Your task to perform on an android device: star an email in the gmail app Image 0: 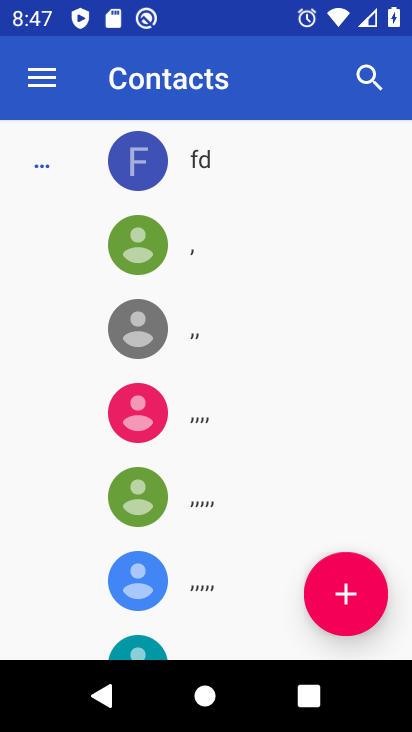
Step 0: press back button
Your task to perform on an android device: star an email in the gmail app Image 1: 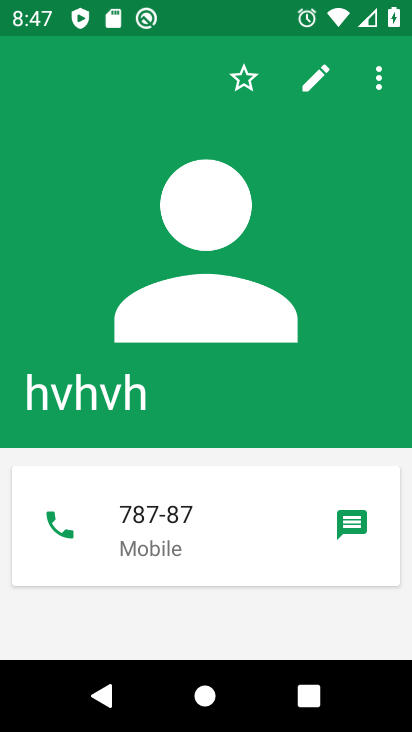
Step 1: press back button
Your task to perform on an android device: star an email in the gmail app Image 2: 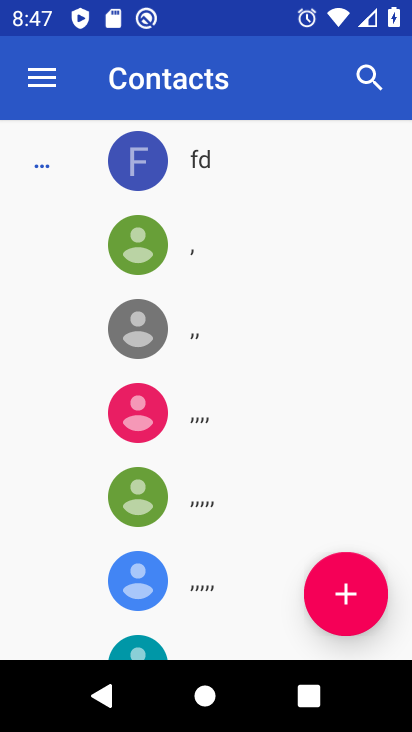
Step 2: press back button
Your task to perform on an android device: star an email in the gmail app Image 3: 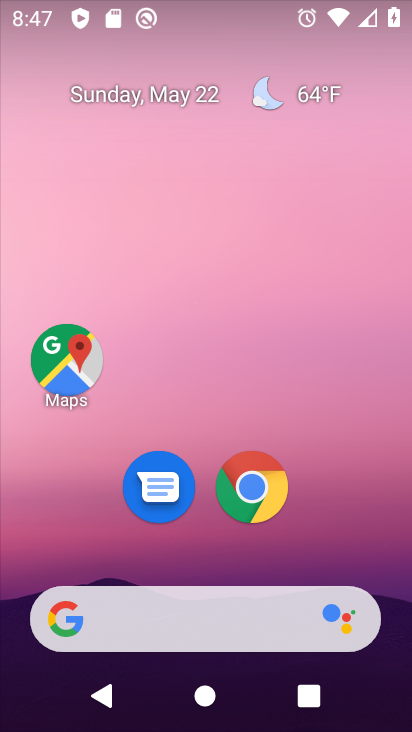
Step 3: drag from (199, 445) to (256, 39)
Your task to perform on an android device: star an email in the gmail app Image 4: 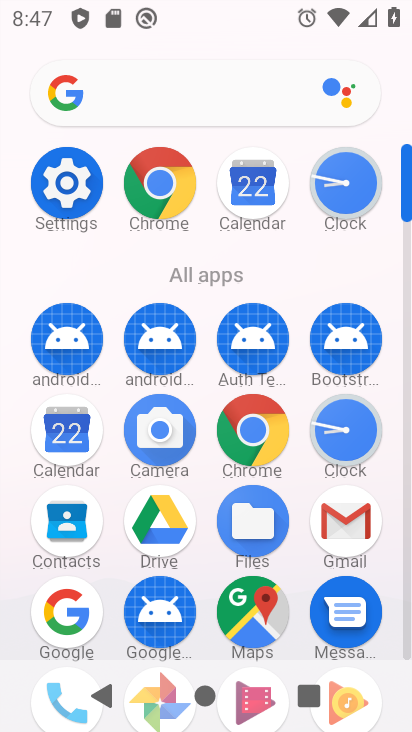
Step 4: click (343, 511)
Your task to perform on an android device: star an email in the gmail app Image 5: 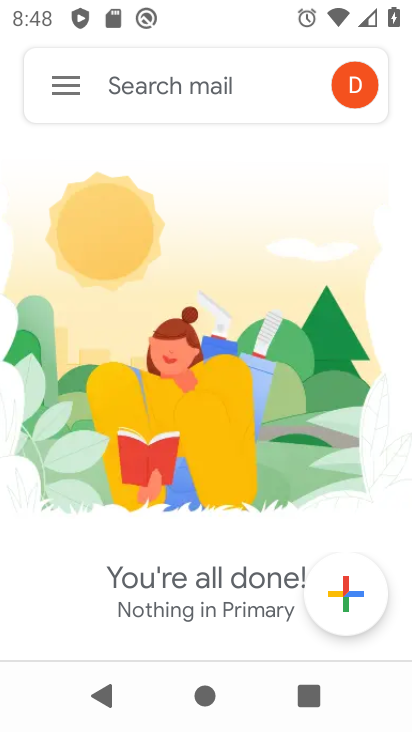
Step 5: click (71, 78)
Your task to perform on an android device: star an email in the gmail app Image 6: 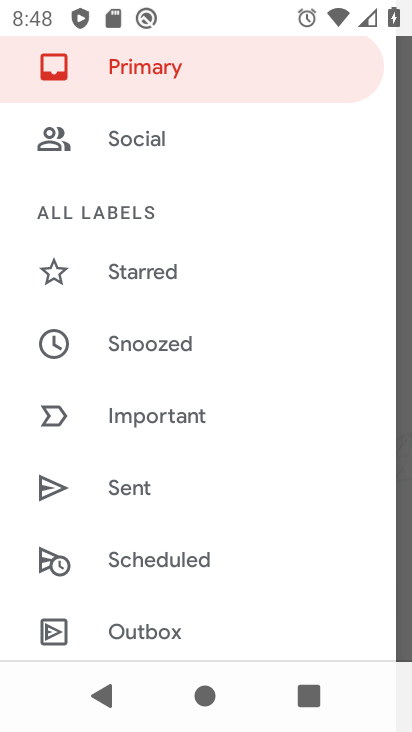
Step 6: drag from (206, 244) to (263, 41)
Your task to perform on an android device: star an email in the gmail app Image 7: 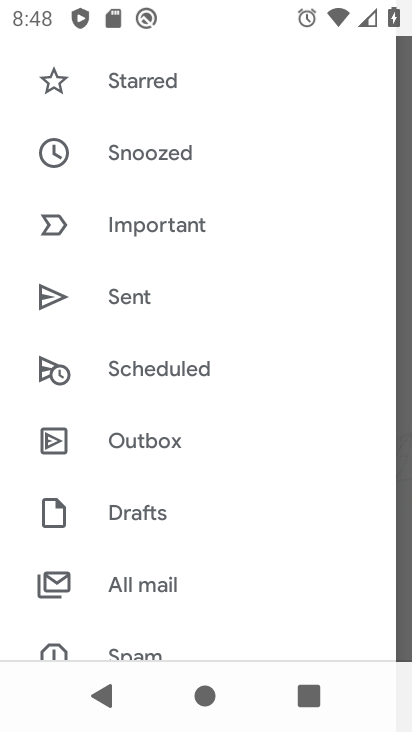
Step 7: click (120, 578)
Your task to perform on an android device: star an email in the gmail app Image 8: 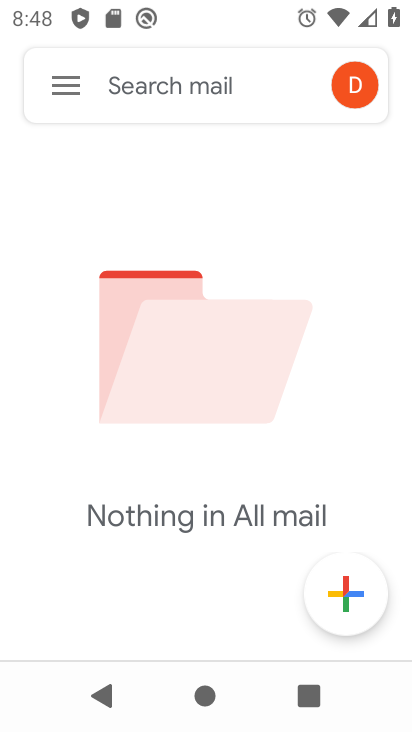
Step 8: task complete